Your task to perform on an android device: open a new tab in the chrome app Image 0: 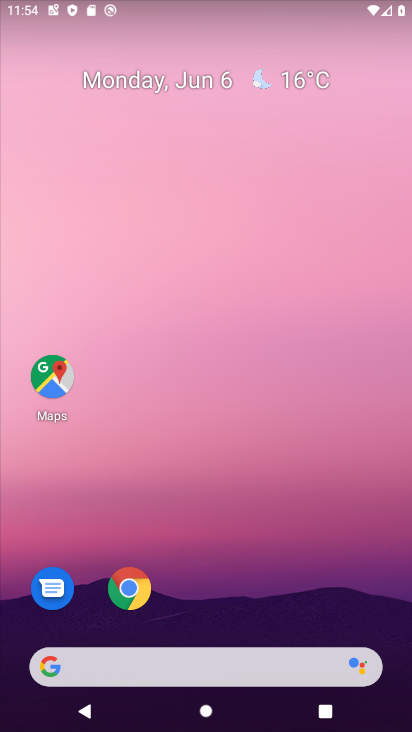
Step 0: click (119, 589)
Your task to perform on an android device: open a new tab in the chrome app Image 1: 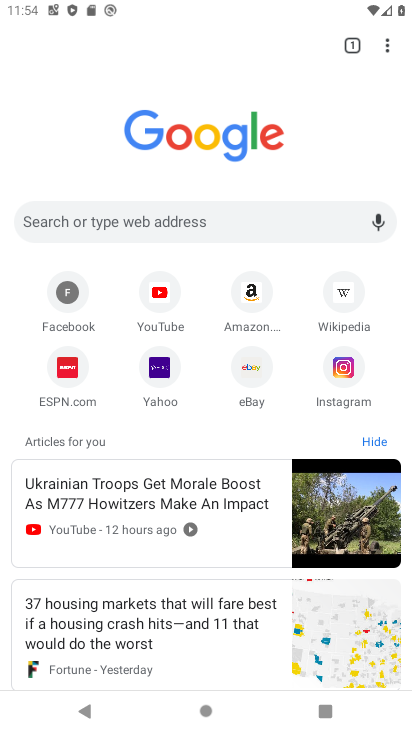
Step 1: click (387, 48)
Your task to perform on an android device: open a new tab in the chrome app Image 2: 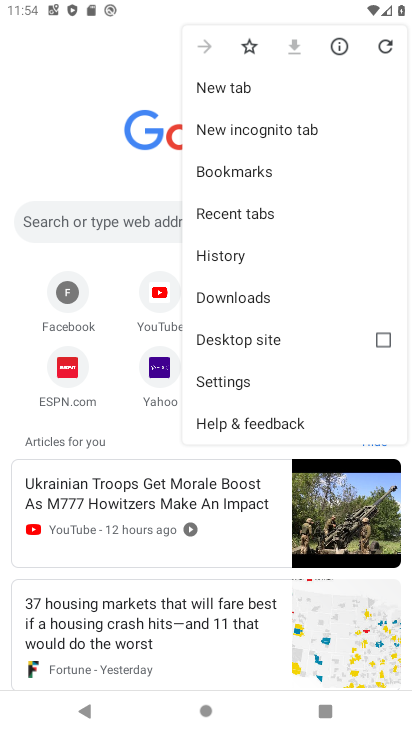
Step 2: click (292, 80)
Your task to perform on an android device: open a new tab in the chrome app Image 3: 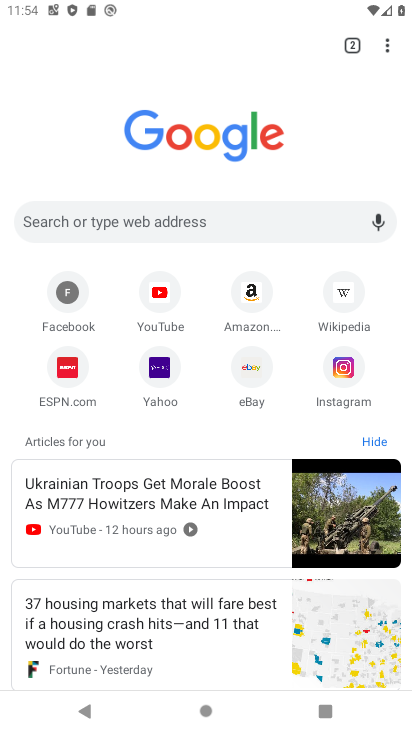
Step 3: task complete